Your task to perform on an android device: set default search engine in the chrome app Image 0: 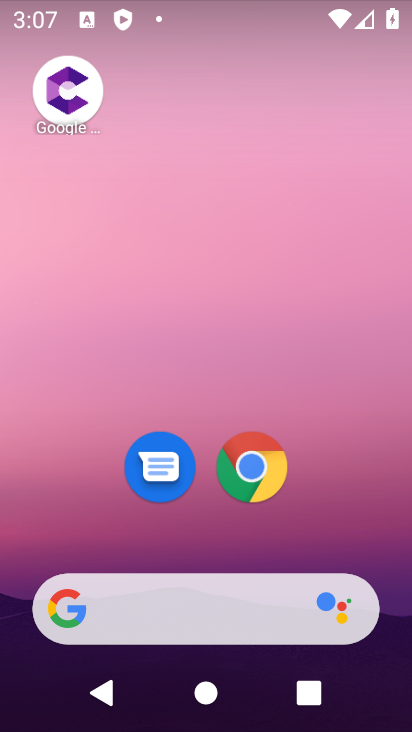
Step 0: click (268, 476)
Your task to perform on an android device: set default search engine in the chrome app Image 1: 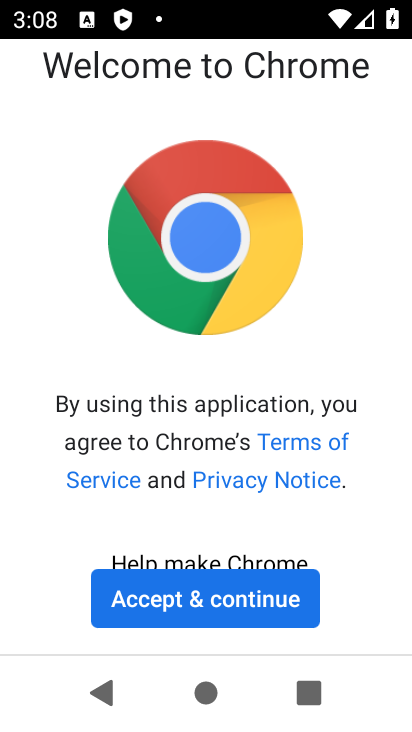
Step 1: task complete